Your task to perform on an android device: Open the phone app and click the voicemail tab. Image 0: 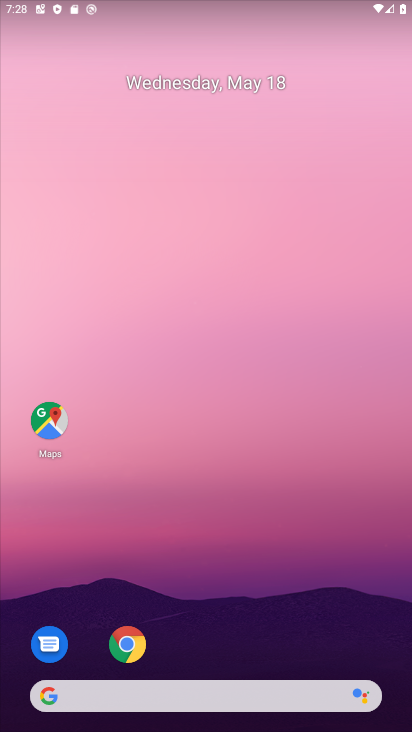
Step 0: drag from (225, 622) to (159, 192)
Your task to perform on an android device: Open the phone app and click the voicemail tab. Image 1: 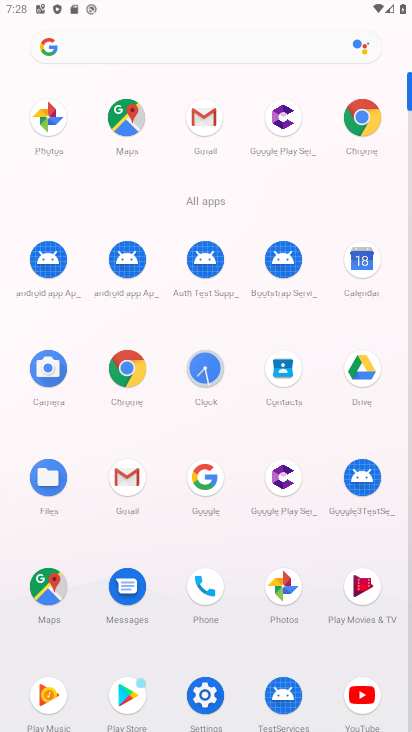
Step 1: click (201, 588)
Your task to perform on an android device: Open the phone app and click the voicemail tab. Image 2: 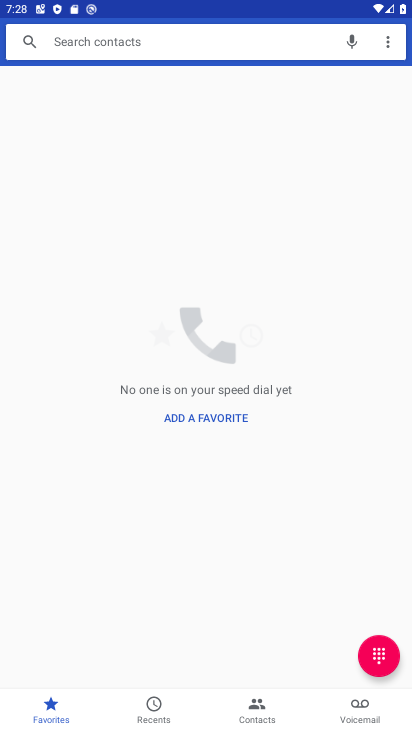
Step 2: click (363, 709)
Your task to perform on an android device: Open the phone app and click the voicemail tab. Image 3: 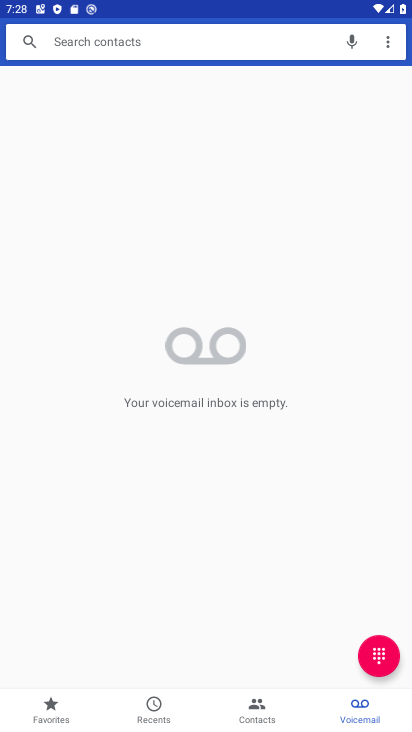
Step 3: task complete